Your task to perform on an android device: Open the calendar and show me this week's events Image 0: 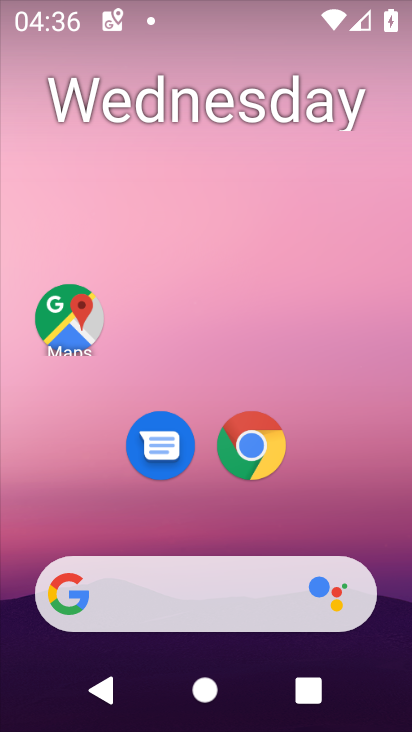
Step 0: click (245, 106)
Your task to perform on an android device: Open the calendar and show me this week's events Image 1: 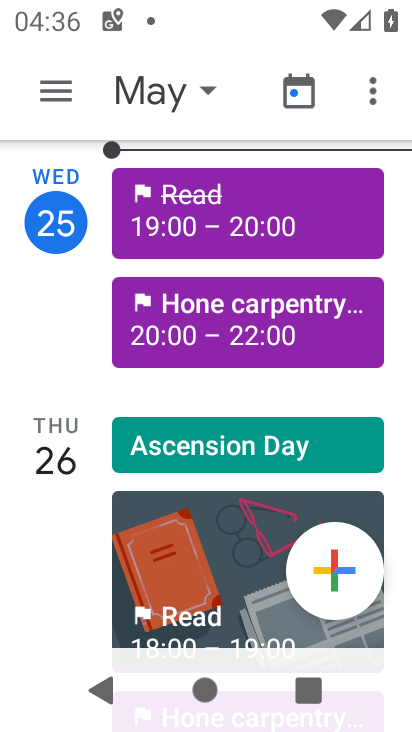
Step 1: click (151, 95)
Your task to perform on an android device: Open the calendar and show me this week's events Image 2: 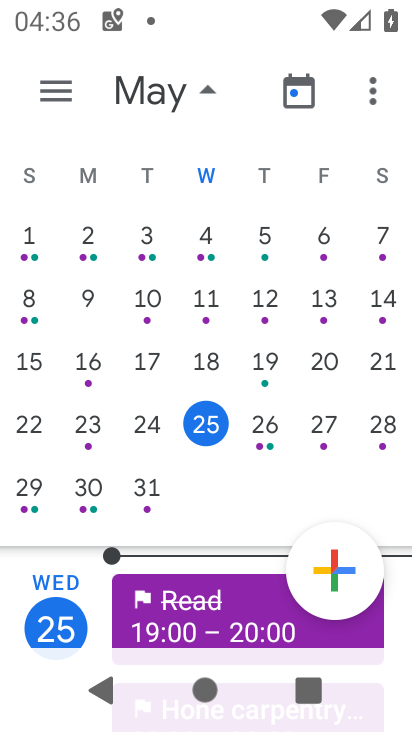
Step 2: task complete